Your task to perform on an android device: Open Youtube and go to "Your channel" Image 0: 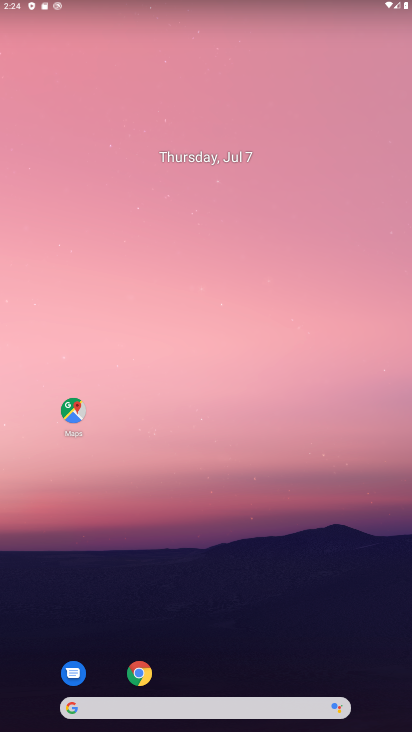
Step 0: drag from (234, 671) to (204, 52)
Your task to perform on an android device: Open Youtube and go to "Your channel" Image 1: 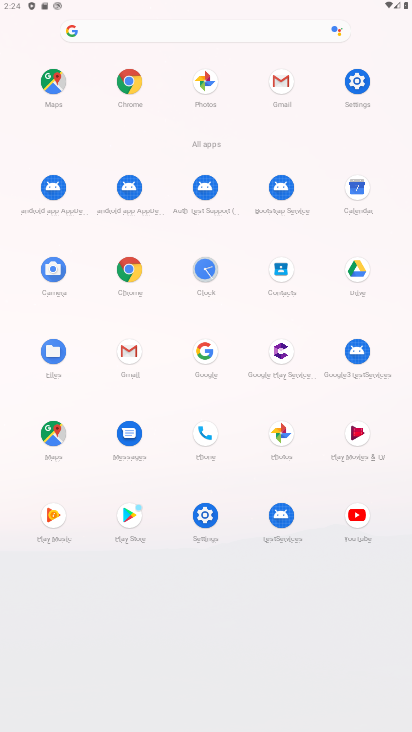
Step 1: click (365, 514)
Your task to perform on an android device: Open Youtube and go to "Your channel" Image 2: 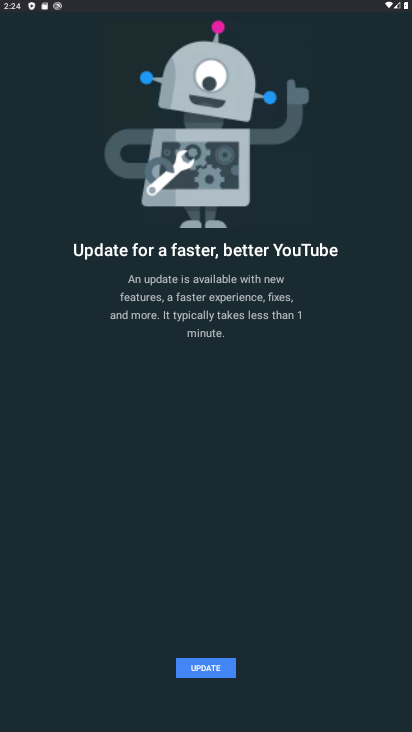
Step 2: click (226, 659)
Your task to perform on an android device: Open Youtube and go to "Your channel" Image 3: 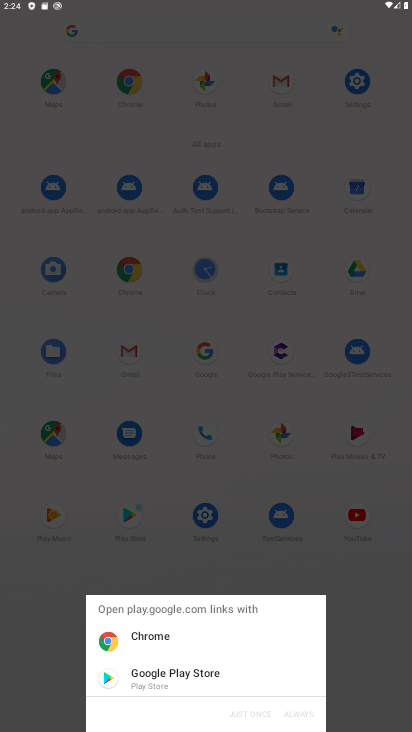
Step 3: click (169, 664)
Your task to perform on an android device: Open Youtube and go to "Your channel" Image 4: 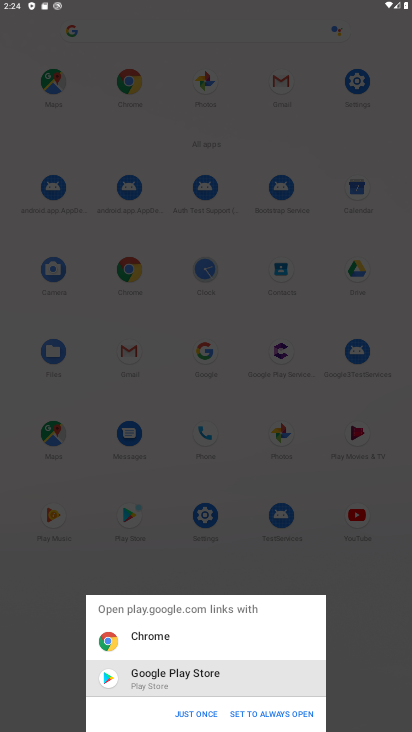
Step 4: click (371, 590)
Your task to perform on an android device: Open Youtube and go to "Your channel" Image 5: 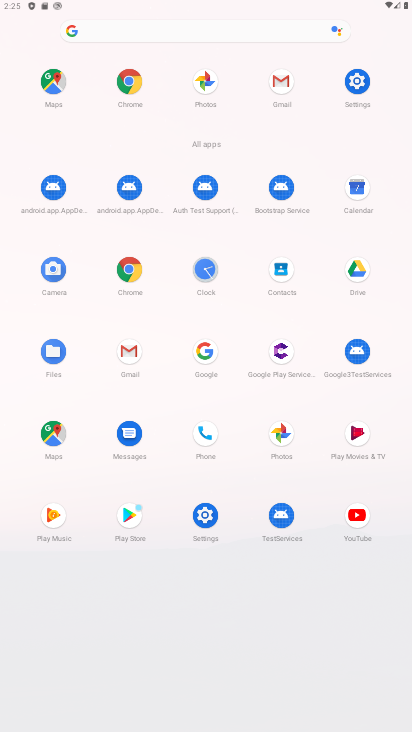
Step 5: click (345, 519)
Your task to perform on an android device: Open Youtube and go to "Your channel" Image 6: 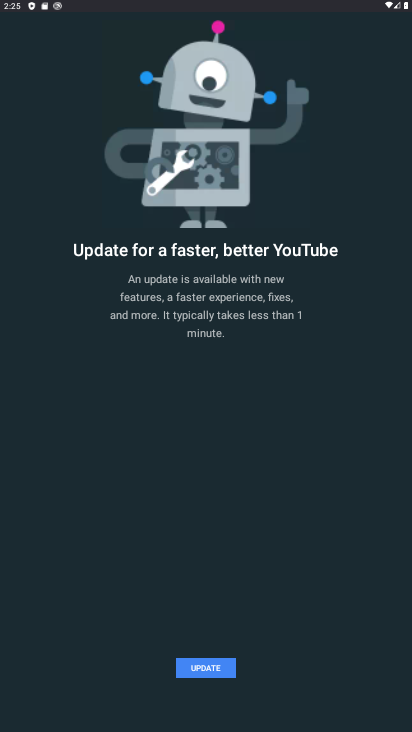
Step 6: click (219, 667)
Your task to perform on an android device: Open Youtube and go to "Your channel" Image 7: 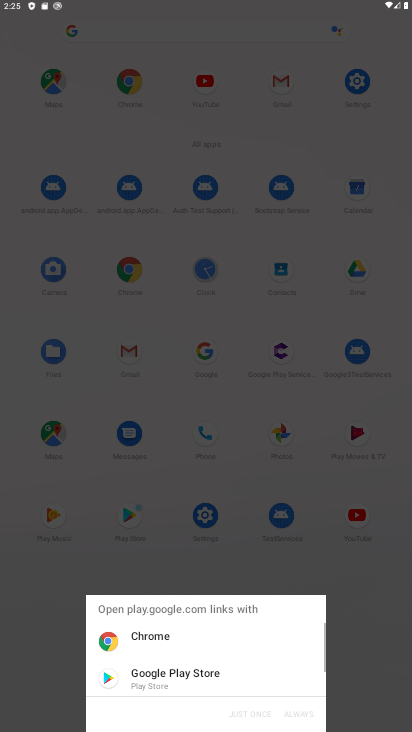
Step 7: click (166, 665)
Your task to perform on an android device: Open Youtube and go to "Your channel" Image 8: 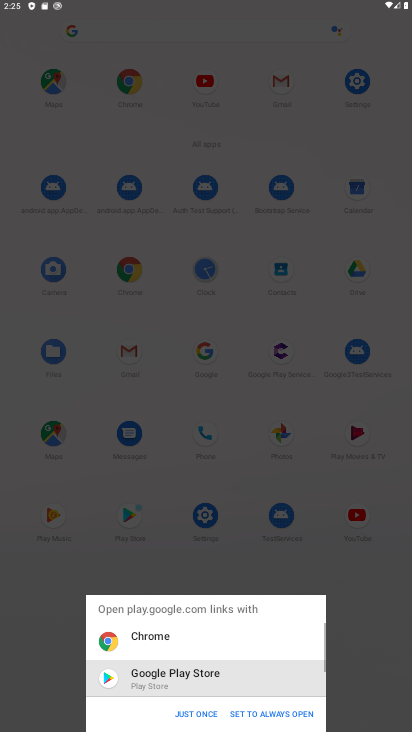
Step 8: click (205, 721)
Your task to perform on an android device: Open Youtube and go to "Your channel" Image 9: 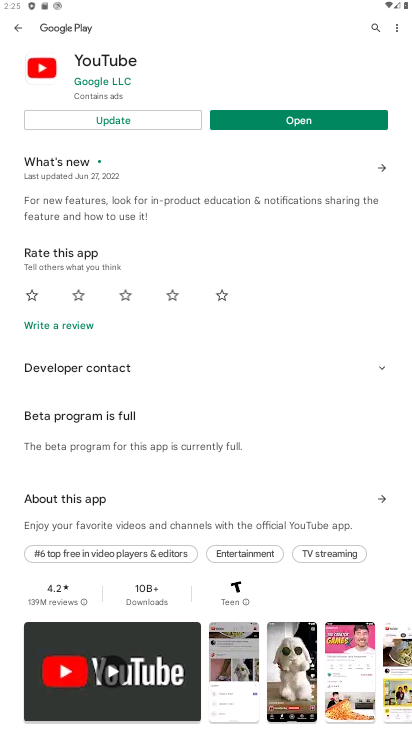
Step 9: click (243, 117)
Your task to perform on an android device: Open Youtube and go to "Your channel" Image 10: 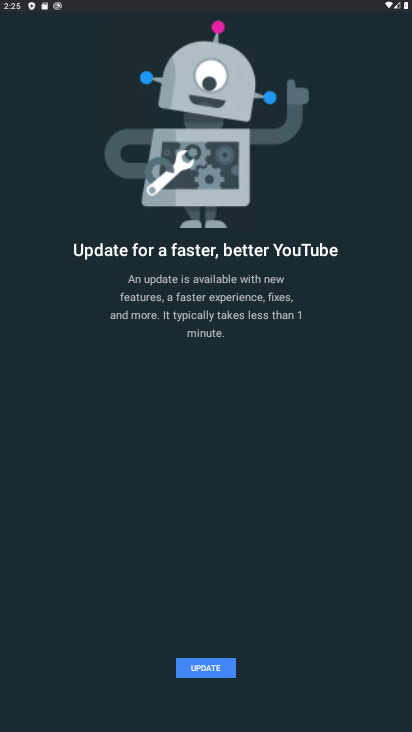
Step 10: click (229, 667)
Your task to perform on an android device: Open Youtube and go to "Your channel" Image 11: 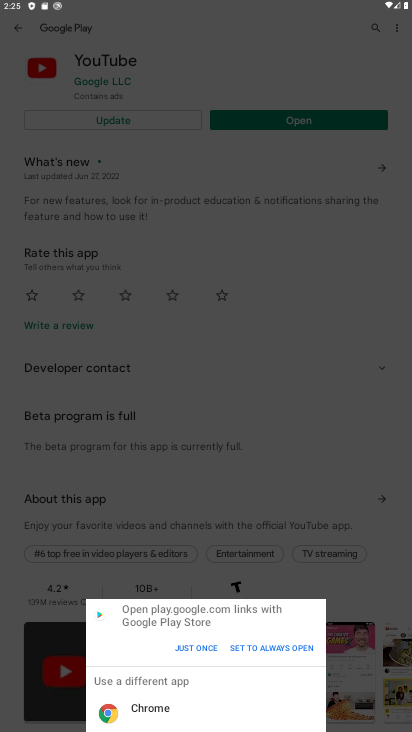
Step 11: click (193, 649)
Your task to perform on an android device: Open Youtube and go to "Your channel" Image 12: 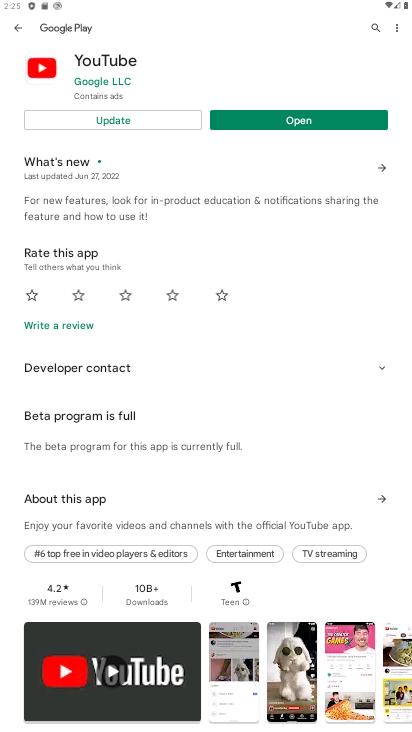
Step 12: click (140, 113)
Your task to perform on an android device: Open Youtube and go to "Your channel" Image 13: 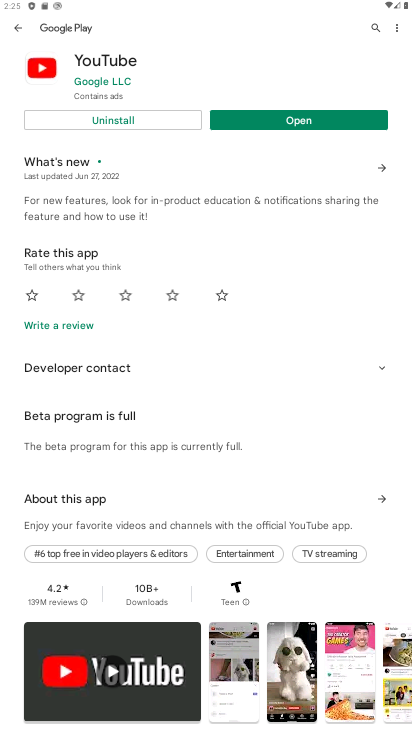
Step 13: click (303, 121)
Your task to perform on an android device: Open Youtube and go to "Your channel" Image 14: 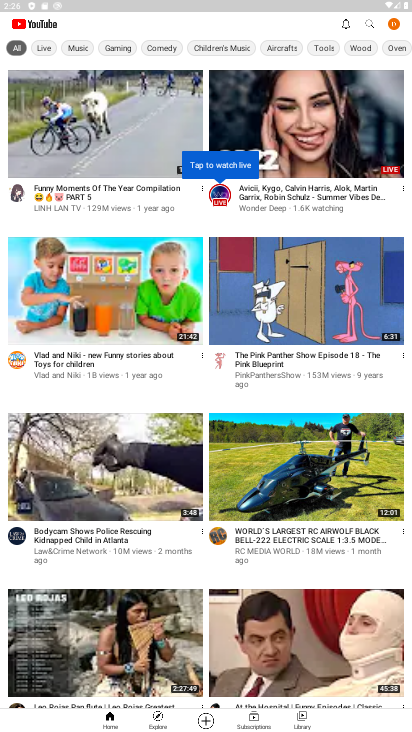
Step 14: click (387, 29)
Your task to perform on an android device: Open Youtube and go to "Your channel" Image 15: 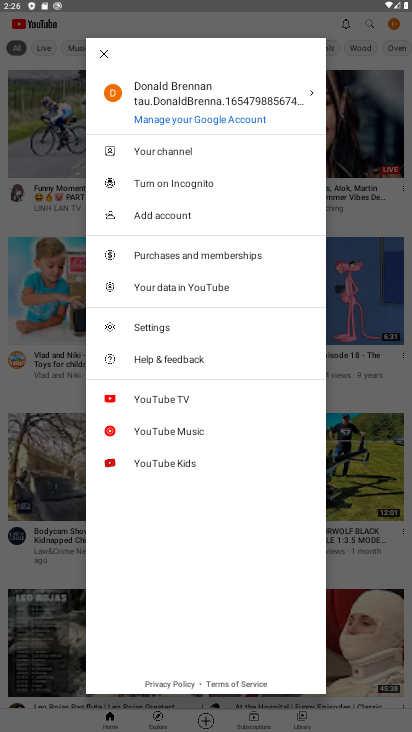
Step 15: click (165, 141)
Your task to perform on an android device: Open Youtube and go to "Your channel" Image 16: 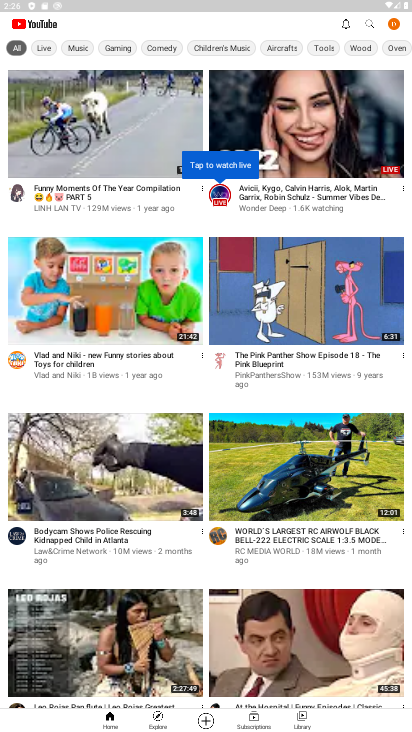
Step 16: drag from (248, 229) to (252, 322)
Your task to perform on an android device: Open Youtube and go to "Your channel" Image 17: 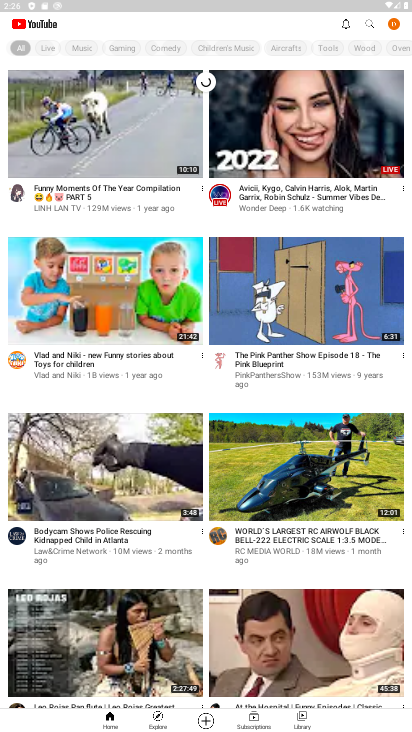
Step 17: click (392, 25)
Your task to perform on an android device: Open Youtube and go to "Your channel" Image 18: 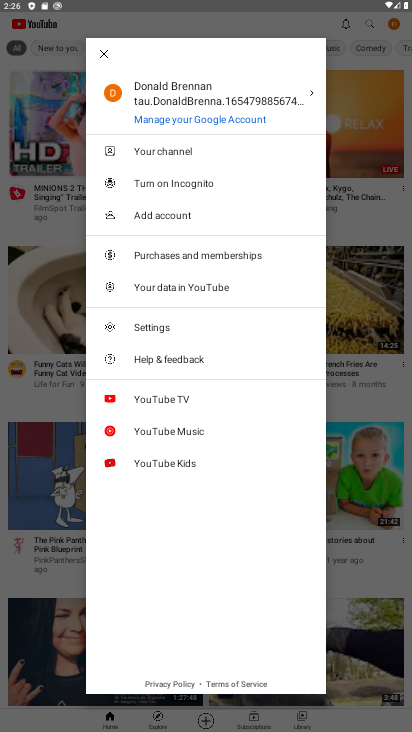
Step 18: click (139, 152)
Your task to perform on an android device: Open Youtube and go to "Your channel" Image 19: 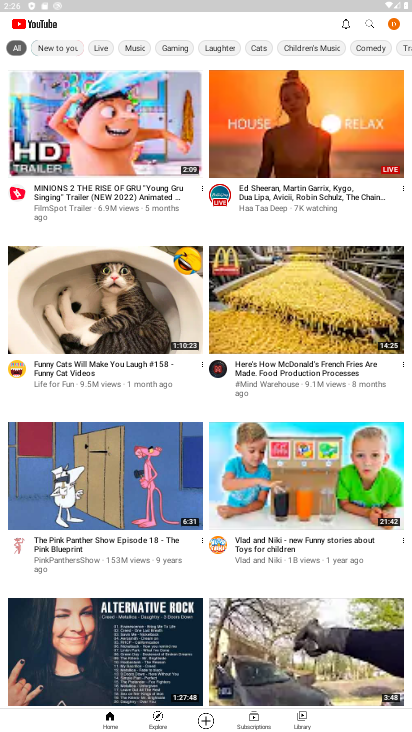
Step 19: task complete